Your task to perform on an android device: delete location history Image 0: 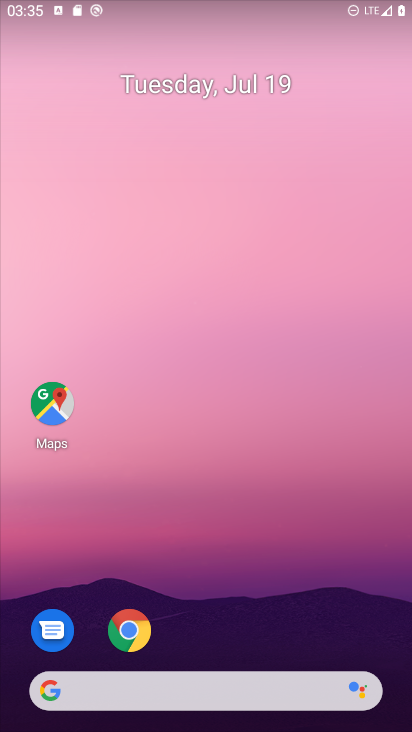
Step 0: click (55, 404)
Your task to perform on an android device: delete location history Image 1: 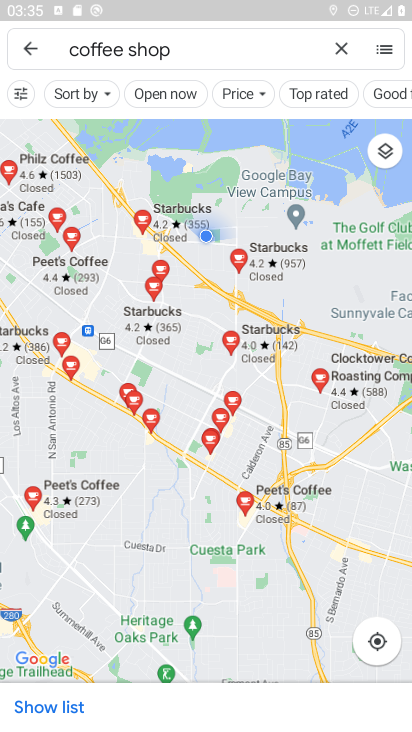
Step 1: click (339, 45)
Your task to perform on an android device: delete location history Image 2: 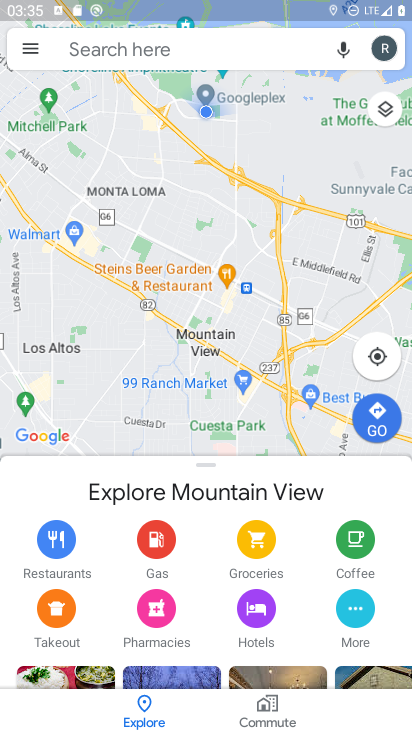
Step 2: click (30, 43)
Your task to perform on an android device: delete location history Image 3: 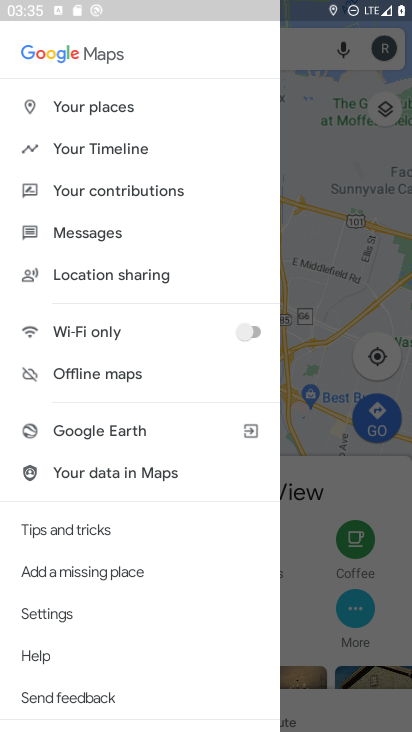
Step 3: click (51, 610)
Your task to perform on an android device: delete location history Image 4: 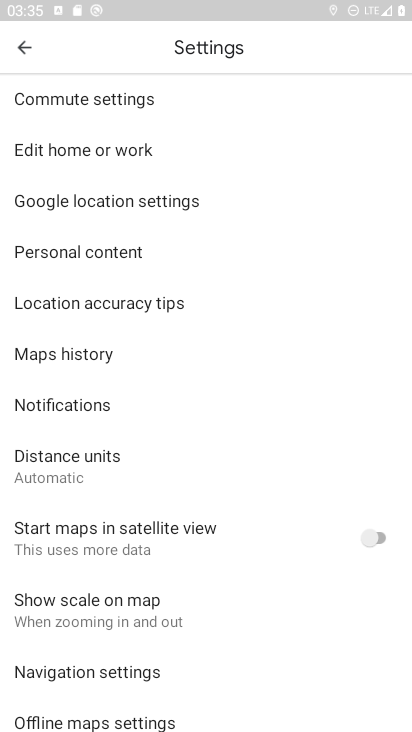
Step 4: click (68, 247)
Your task to perform on an android device: delete location history Image 5: 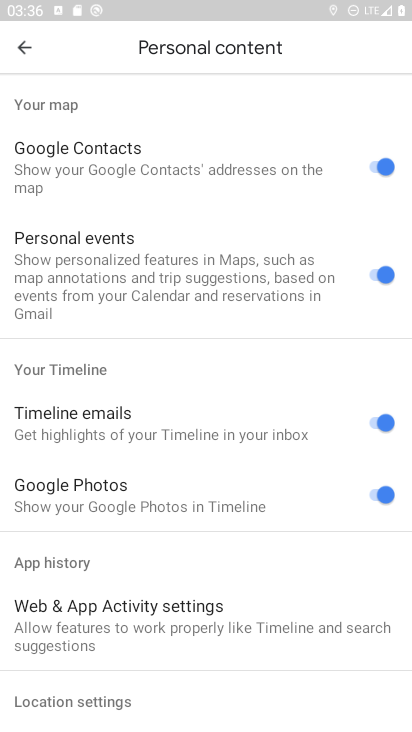
Step 5: drag from (233, 541) to (209, 153)
Your task to perform on an android device: delete location history Image 6: 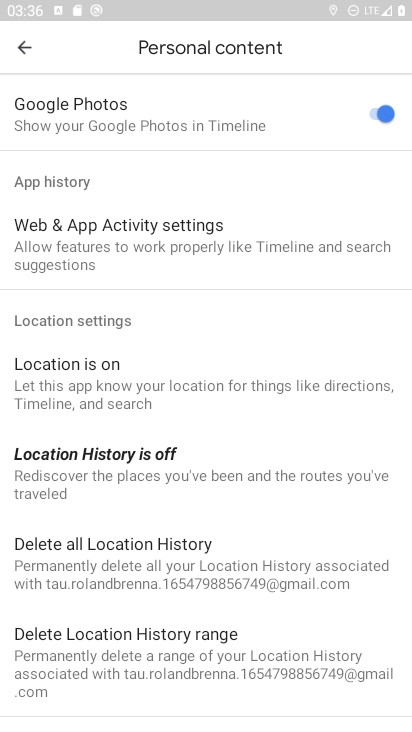
Step 6: click (99, 550)
Your task to perform on an android device: delete location history Image 7: 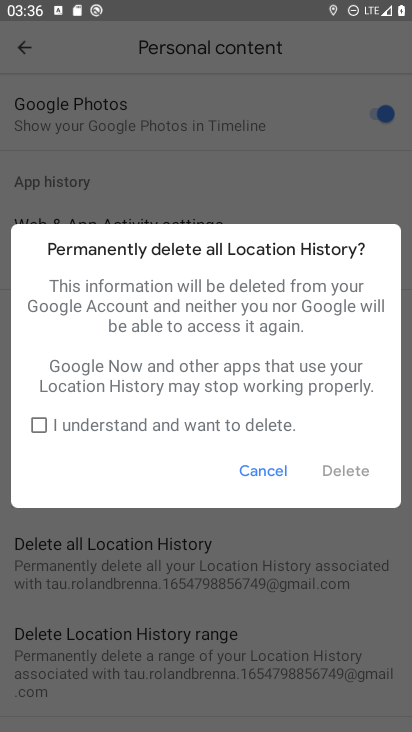
Step 7: click (38, 421)
Your task to perform on an android device: delete location history Image 8: 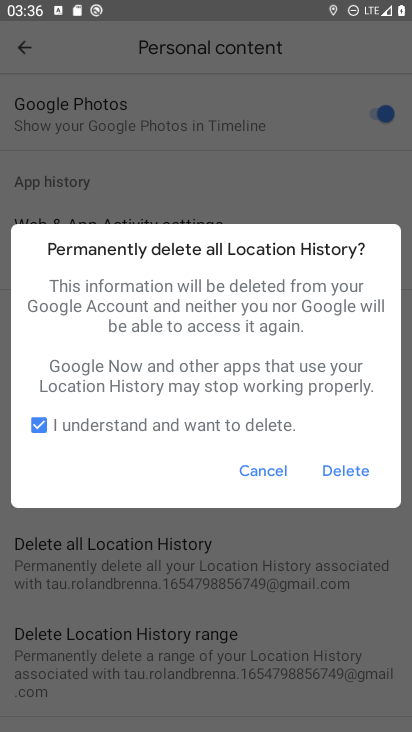
Step 8: click (344, 467)
Your task to perform on an android device: delete location history Image 9: 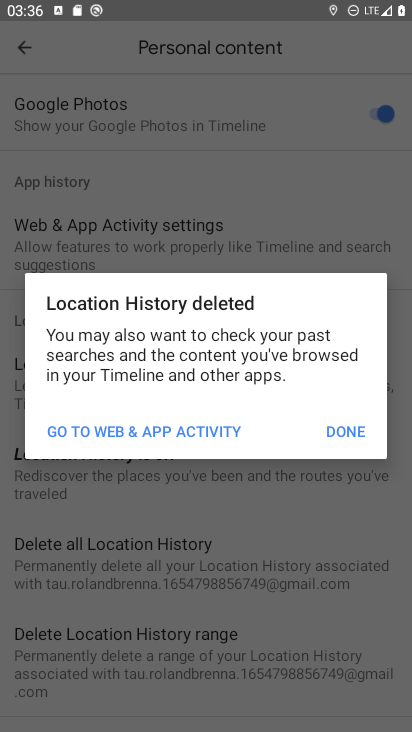
Step 9: click (351, 425)
Your task to perform on an android device: delete location history Image 10: 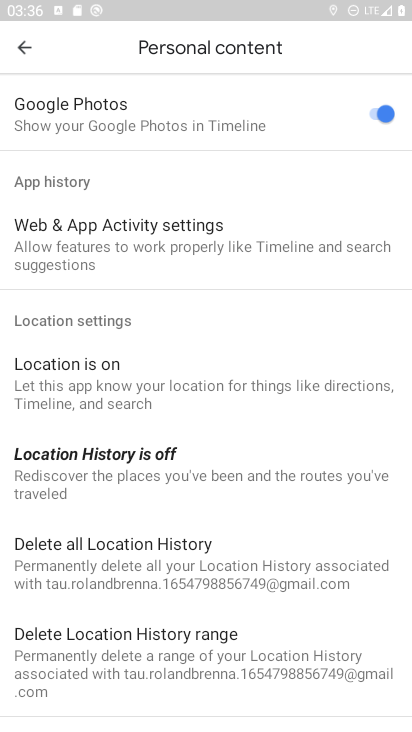
Step 10: task complete